Your task to perform on an android device: Open network settings Image 0: 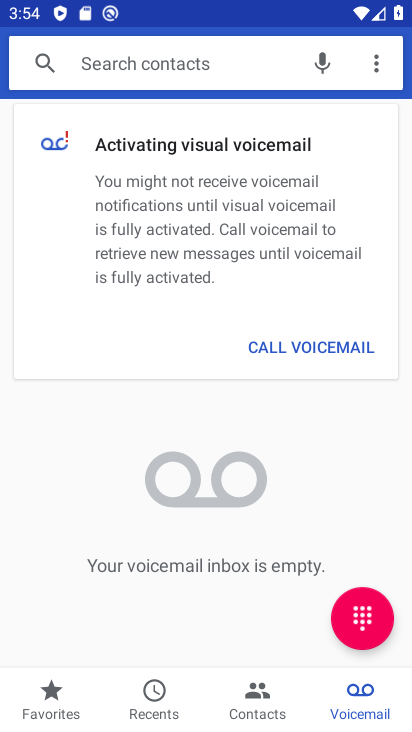
Step 0: press home button
Your task to perform on an android device: Open network settings Image 1: 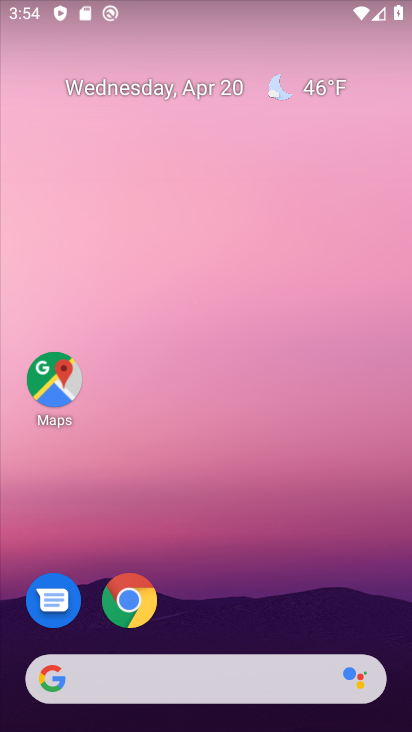
Step 1: drag from (240, 616) to (263, 23)
Your task to perform on an android device: Open network settings Image 2: 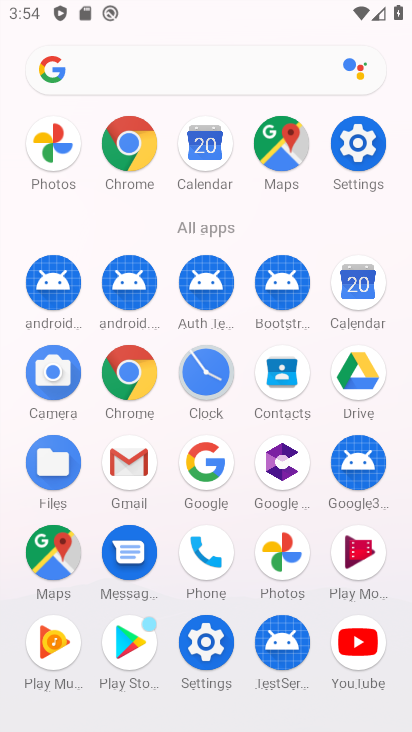
Step 2: click (344, 138)
Your task to perform on an android device: Open network settings Image 3: 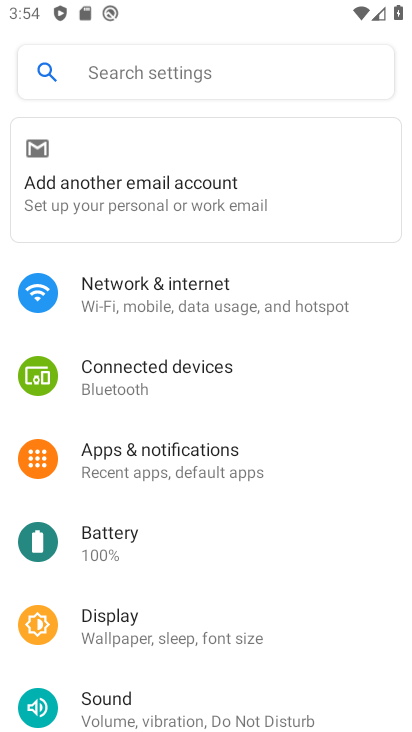
Step 3: click (210, 290)
Your task to perform on an android device: Open network settings Image 4: 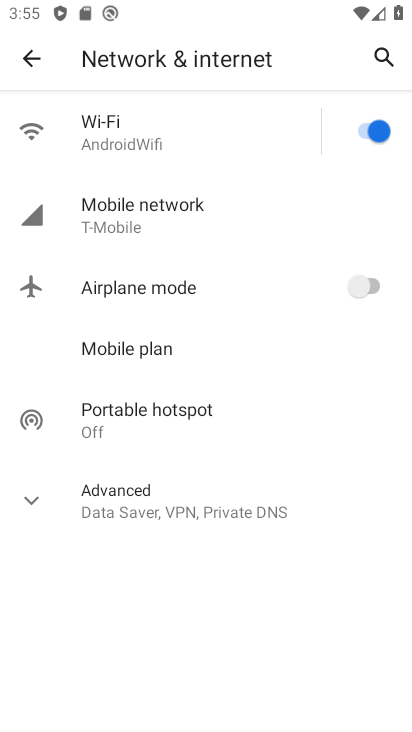
Step 4: task complete